Your task to perform on an android device: Show the shopping cart on amazon. Add "usb-c to usb-a" to the cart on amazon, then select checkout. Image 0: 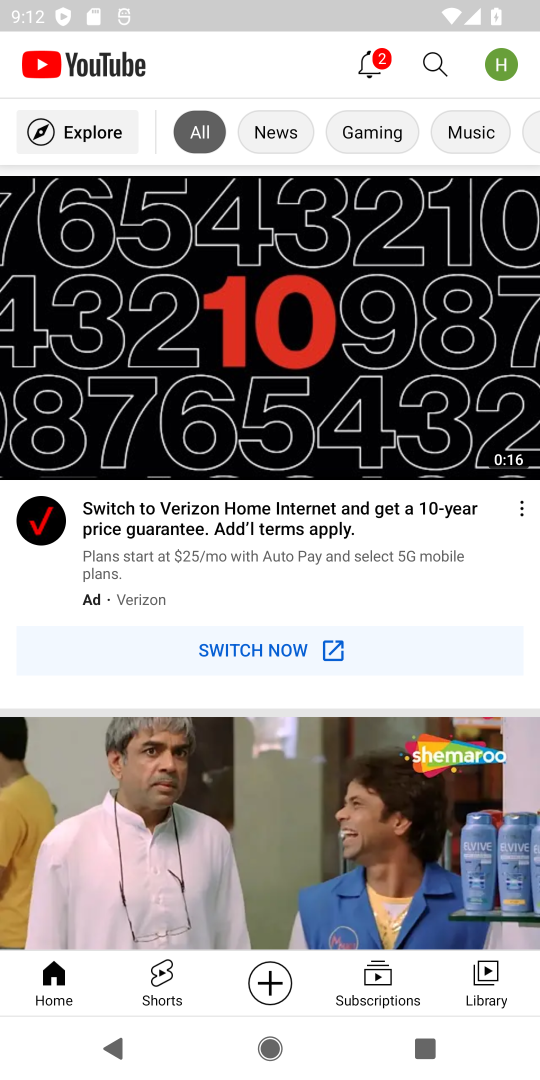
Step 0: press home button
Your task to perform on an android device: Show the shopping cart on amazon. Add "usb-c to usb-a" to the cart on amazon, then select checkout. Image 1: 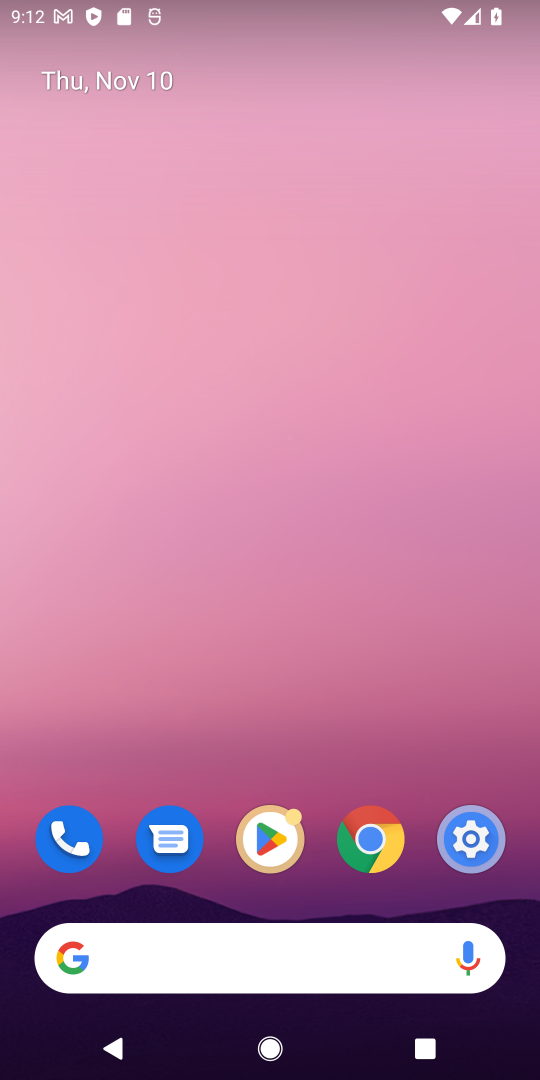
Step 1: click (358, 835)
Your task to perform on an android device: Show the shopping cart on amazon. Add "usb-c to usb-a" to the cart on amazon, then select checkout. Image 2: 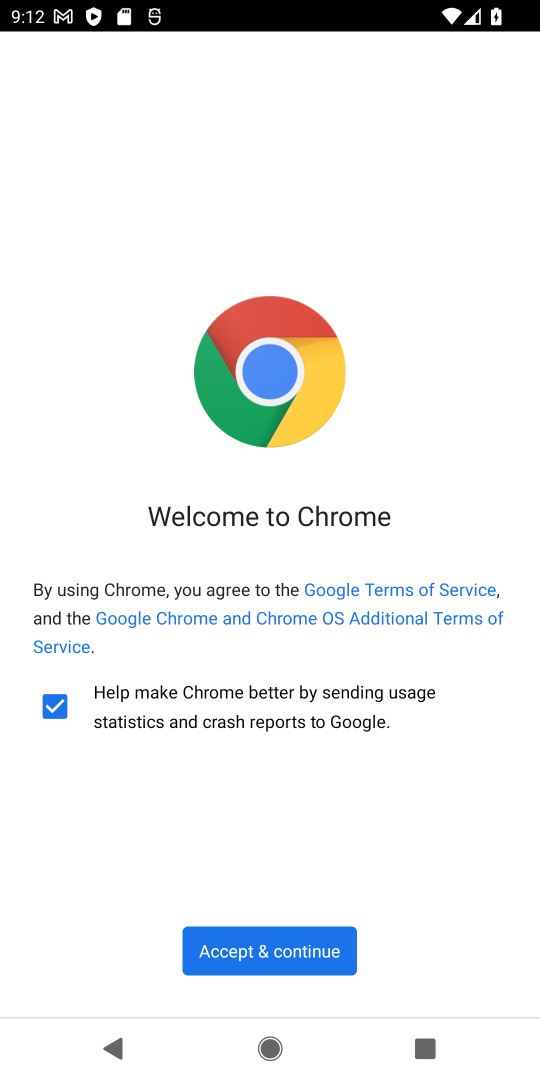
Step 2: click (263, 945)
Your task to perform on an android device: Show the shopping cart on amazon. Add "usb-c to usb-a" to the cart on amazon, then select checkout. Image 3: 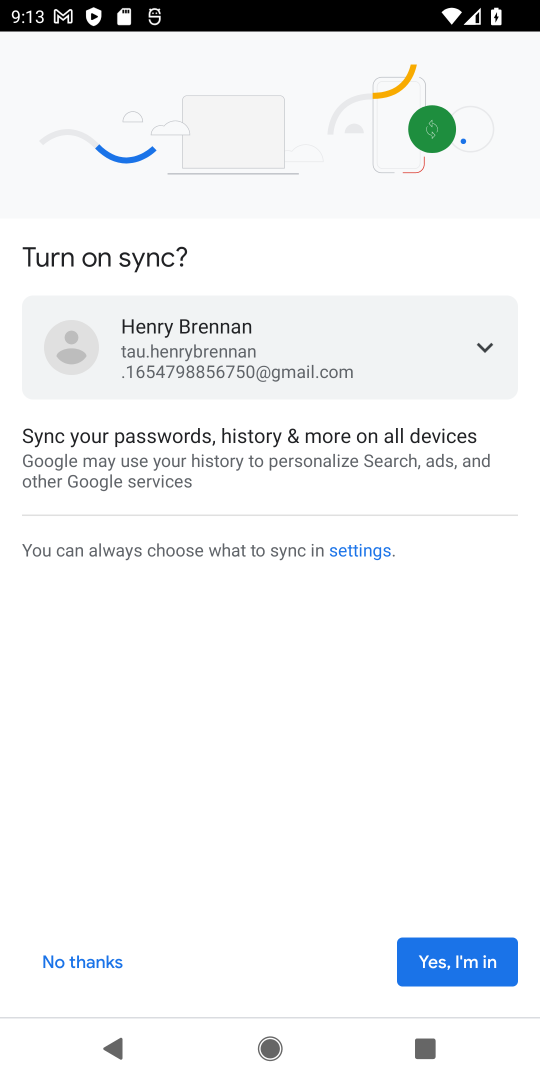
Step 3: click (481, 967)
Your task to perform on an android device: Show the shopping cart on amazon. Add "usb-c to usb-a" to the cart on amazon, then select checkout. Image 4: 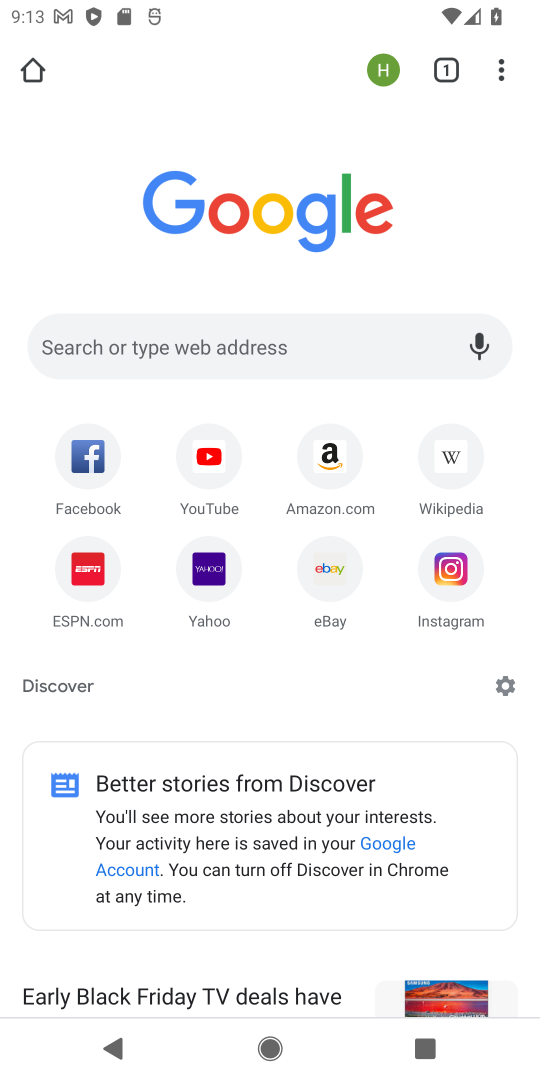
Step 4: click (334, 463)
Your task to perform on an android device: Show the shopping cart on amazon. Add "usb-c to usb-a" to the cart on amazon, then select checkout. Image 5: 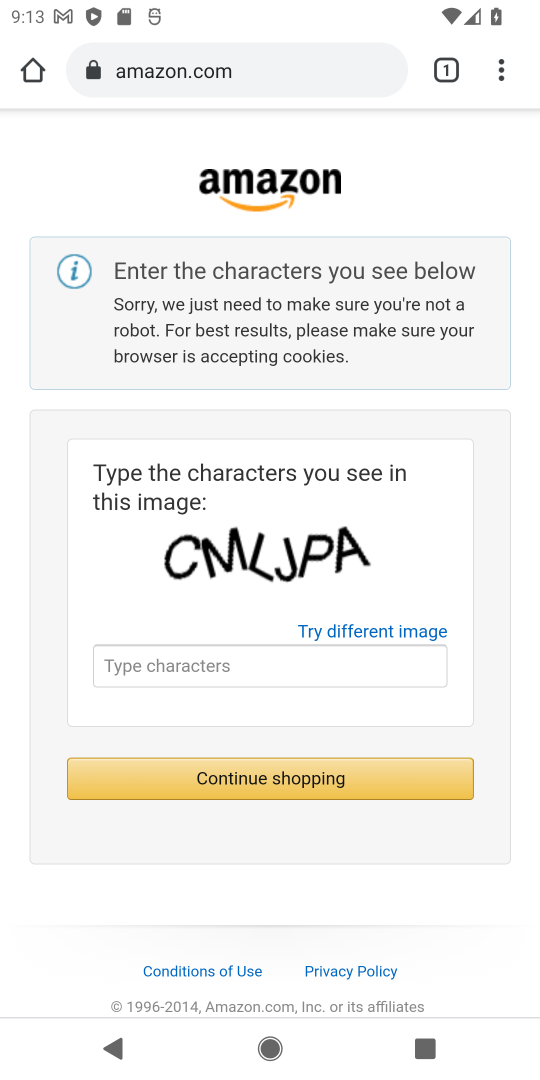
Step 5: click (324, 69)
Your task to perform on an android device: Show the shopping cart on amazon. Add "usb-c to usb-a" to the cart on amazon, then select checkout. Image 6: 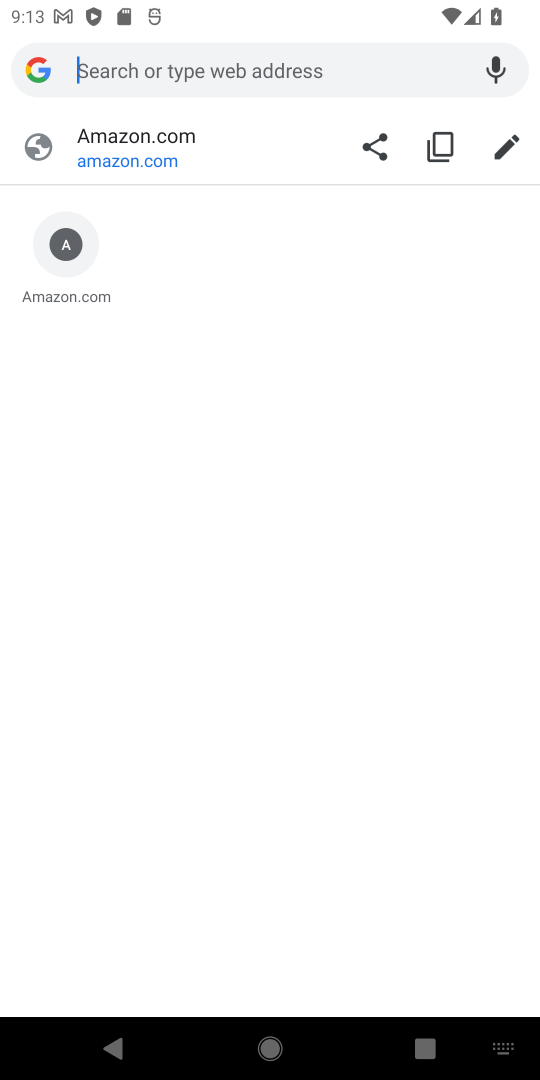
Step 6: type "amazon"
Your task to perform on an android device: Show the shopping cart on amazon. Add "usb-c to usb-a" to the cart on amazon, then select checkout. Image 7: 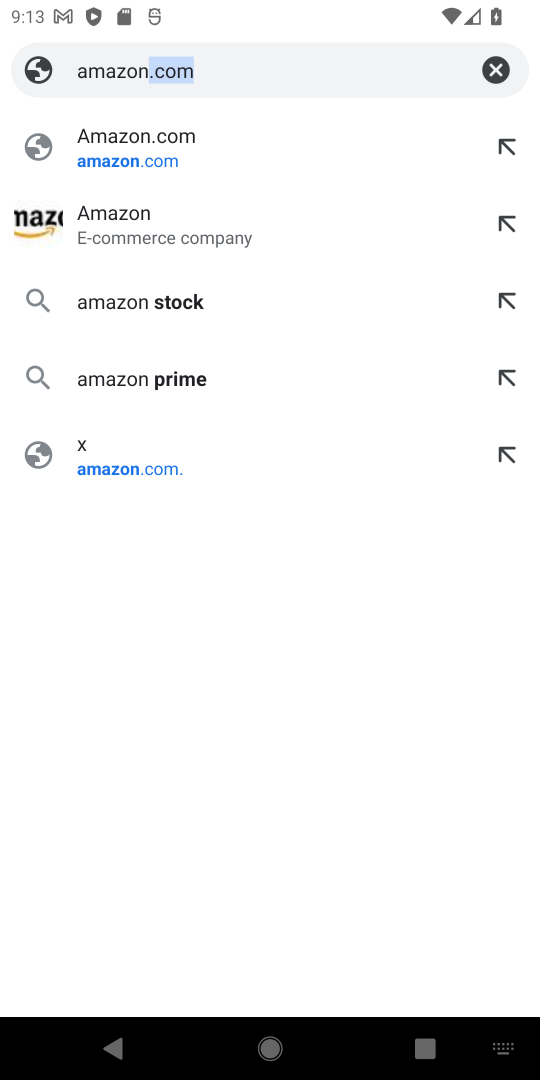
Step 7: click (343, 62)
Your task to perform on an android device: Show the shopping cart on amazon. Add "usb-c to usb-a" to the cart on amazon, then select checkout. Image 8: 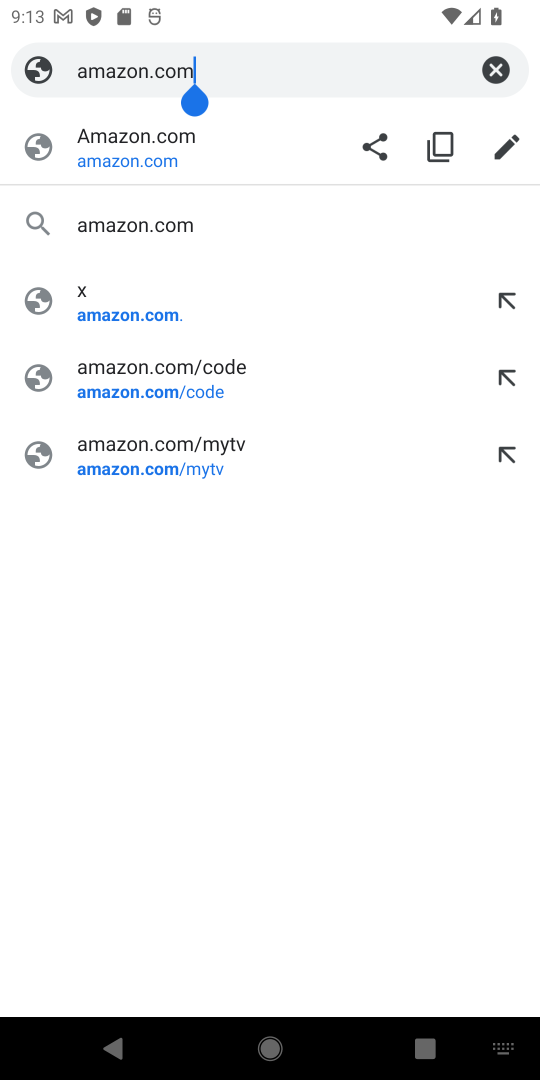
Step 8: click (171, 221)
Your task to perform on an android device: Show the shopping cart on amazon. Add "usb-c to usb-a" to the cart on amazon, then select checkout. Image 9: 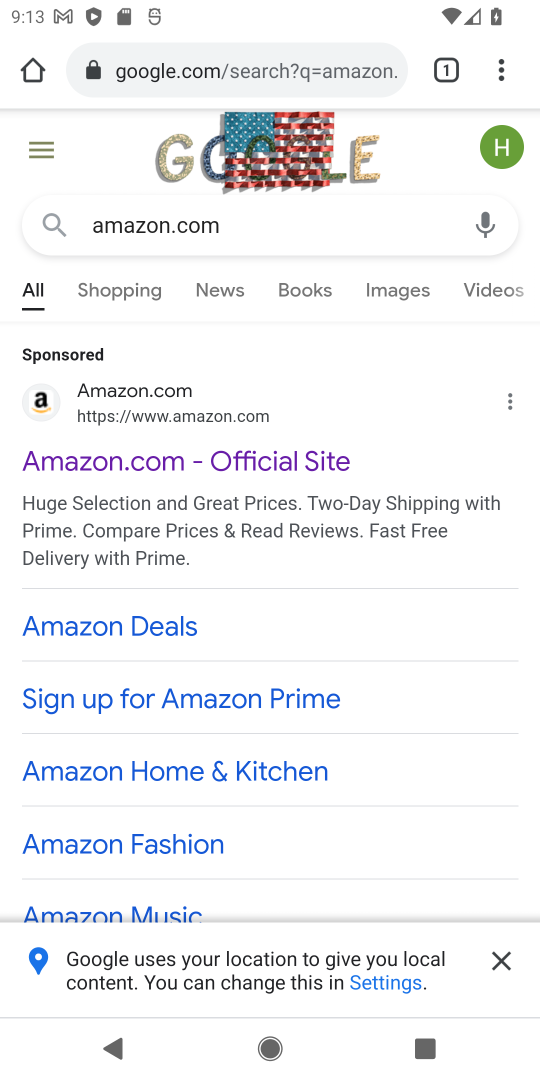
Step 9: drag from (326, 688) to (347, 302)
Your task to perform on an android device: Show the shopping cart on amazon. Add "usb-c to usb-a" to the cart on amazon, then select checkout. Image 10: 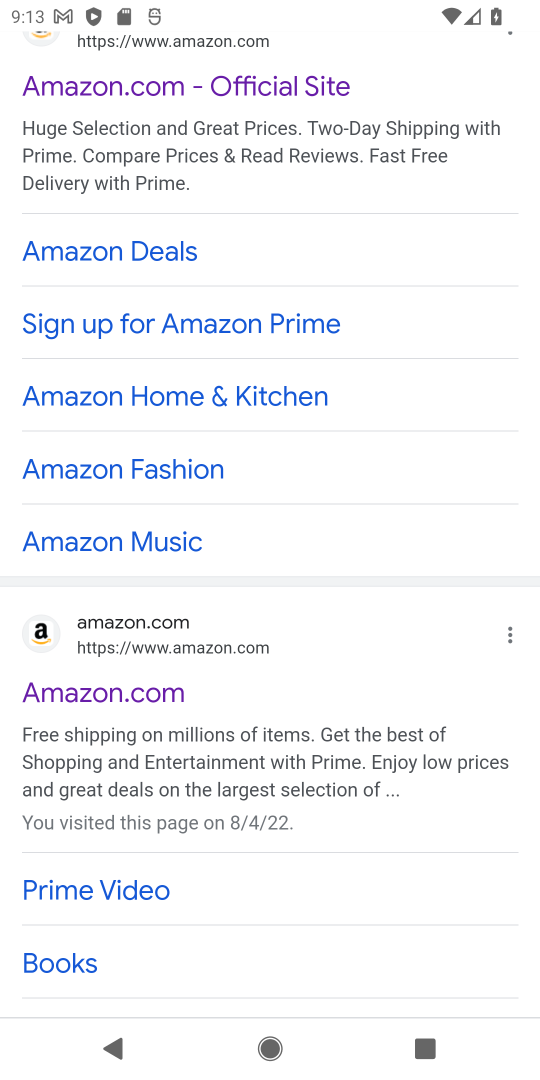
Step 10: click (214, 642)
Your task to perform on an android device: Show the shopping cart on amazon. Add "usb-c to usb-a" to the cart on amazon, then select checkout. Image 11: 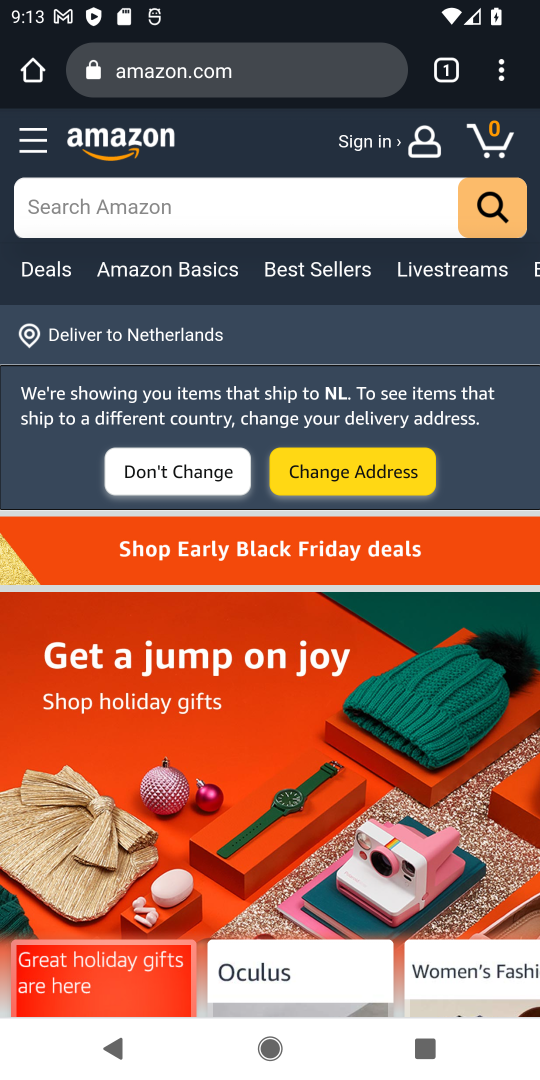
Step 11: click (372, 210)
Your task to perform on an android device: Show the shopping cart on amazon. Add "usb-c to usb-a" to the cart on amazon, then select checkout. Image 12: 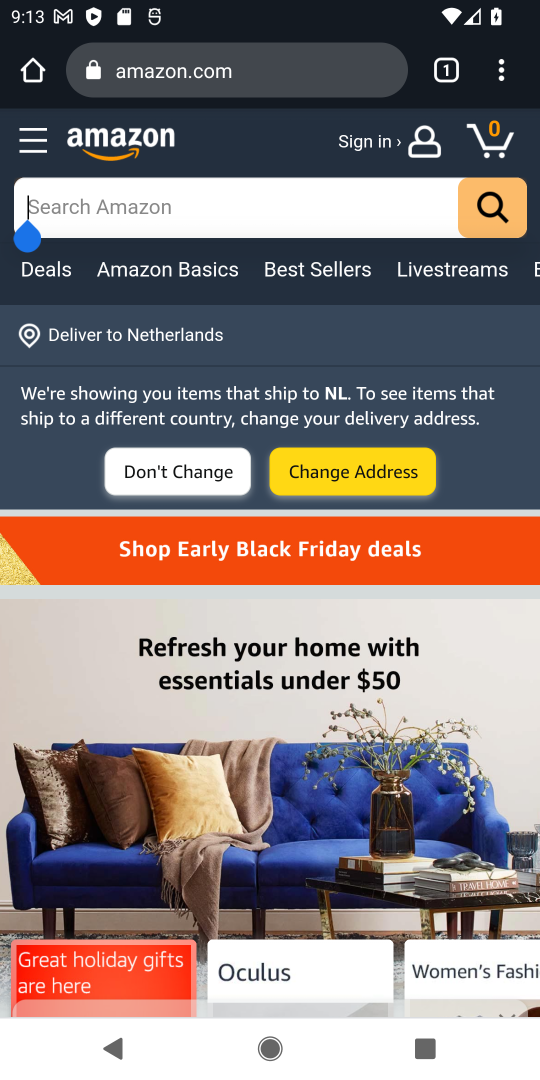
Step 12: type "usb-c to usb-a"
Your task to perform on an android device: Show the shopping cart on amazon. Add "usb-c to usb-a" to the cart on amazon, then select checkout. Image 13: 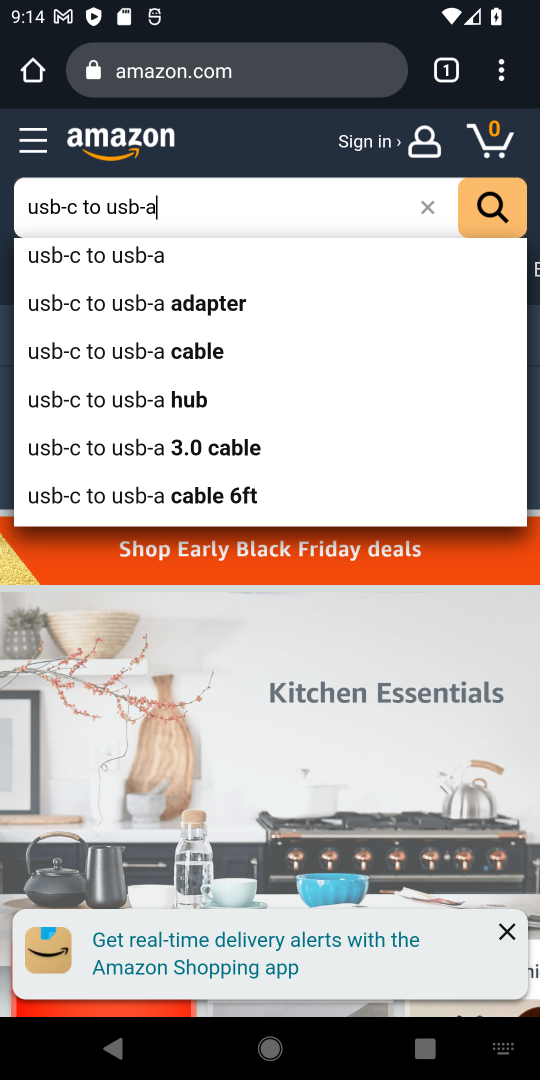
Step 13: click (118, 251)
Your task to perform on an android device: Show the shopping cart on amazon. Add "usb-c to usb-a" to the cart on amazon, then select checkout. Image 14: 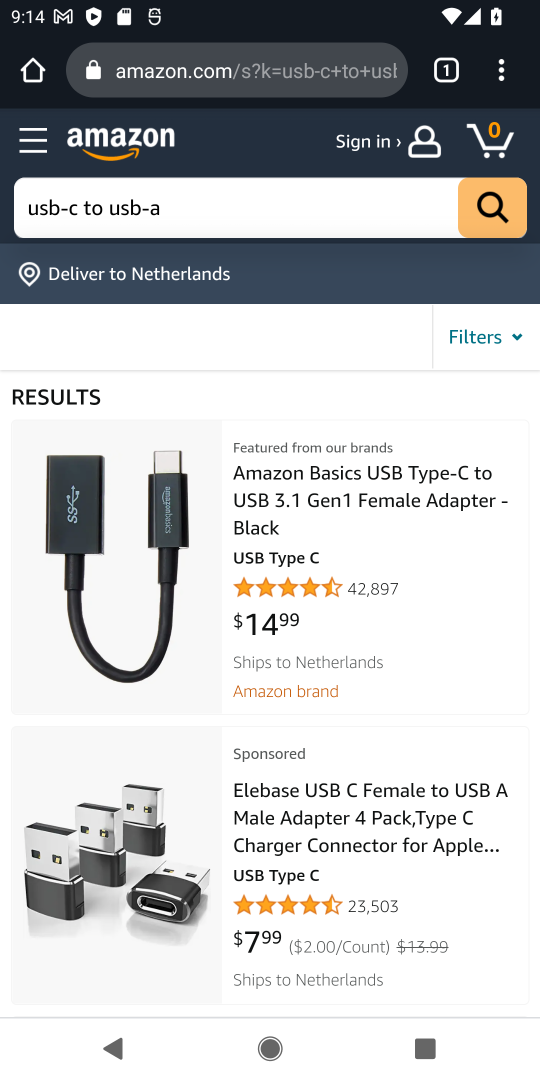
Step 14: click (134, 844)
Your task to perform on an android device: Show the shopping cart on amazon. Add "usb-c to usb-a" to the cart on amazon, then select checkout. Image 15: 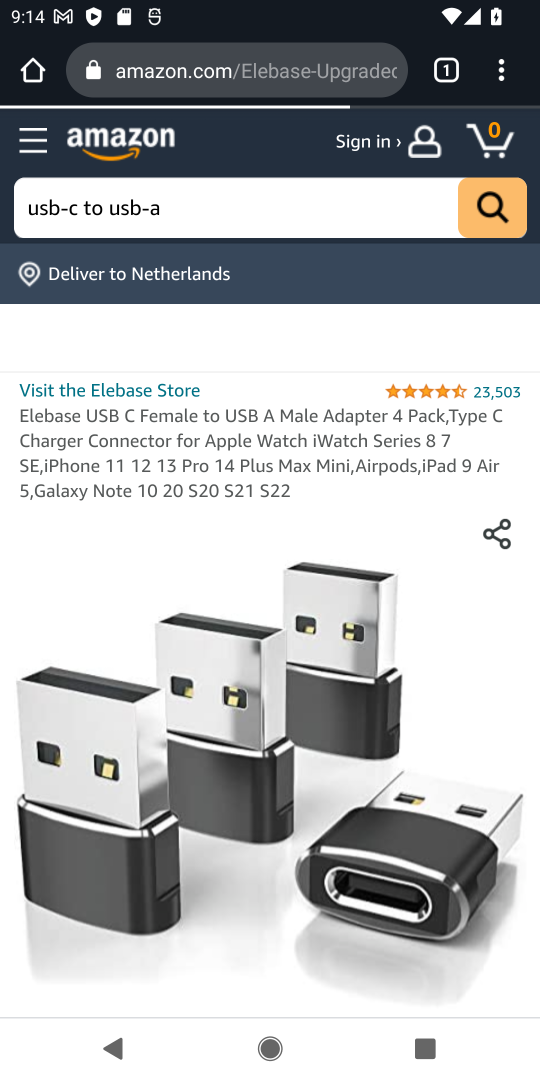
Step 15: drag from (308, 671) to (351, 270)
Your task to perform on an android device: Show the shopping cart on amazon. Add "usb-c to usb-a" to the cart on amazon, then select checkout. Image 16: 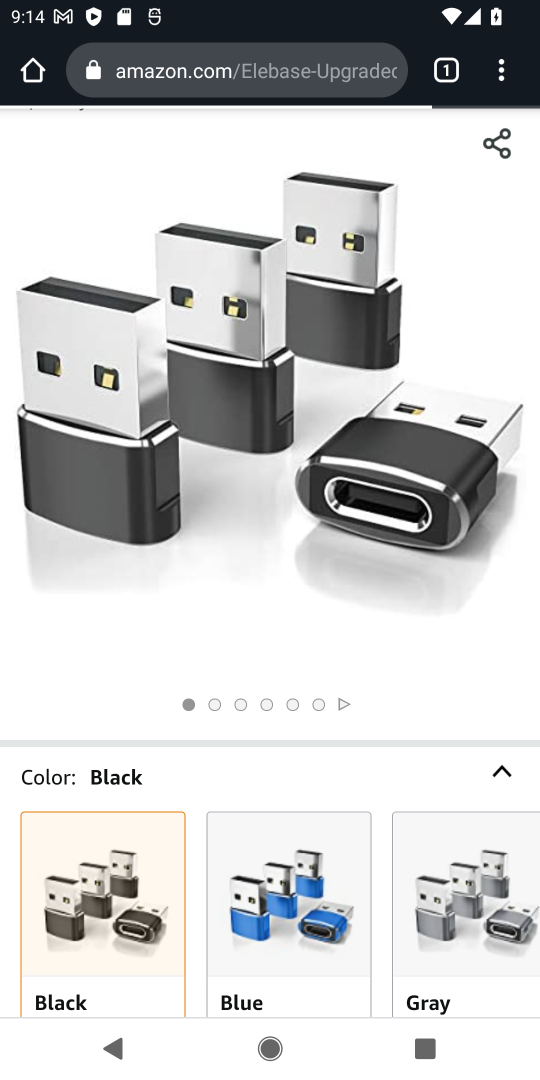
Step 16: drag from (387, 857) to (351, 324)
Your task to perform on an android device: Show the shopping cart on amazon. Add "usb-c to usb-a" to the cart on amazon, then select checkout. Image 17: 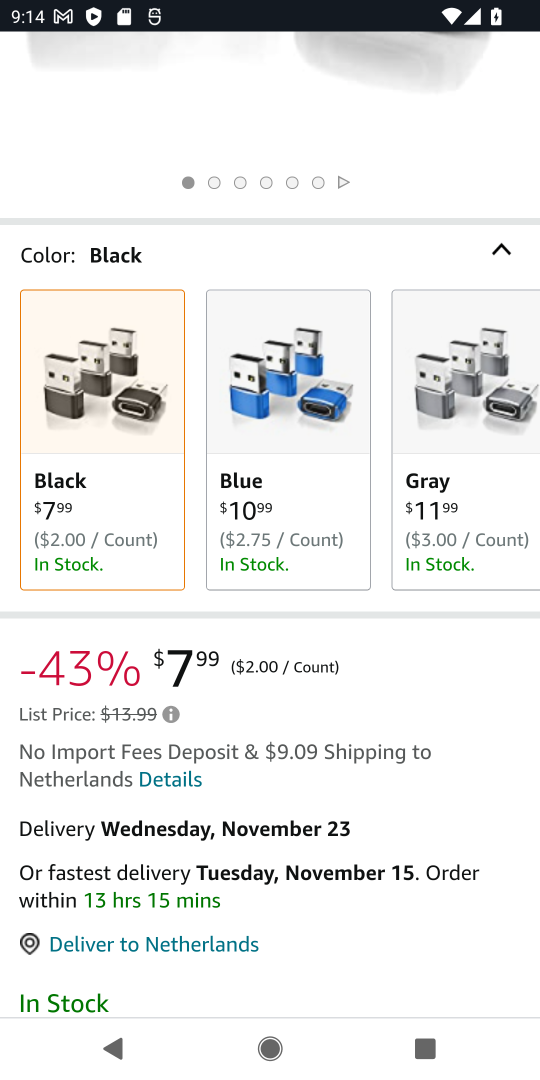
Step 17: drag from (450, 694) to (410, 258)
Your task to perform on an android device: Show the shopping cart on amazon. Add "usb-c to usb-a" to the cart on amazon, then select checkout. Image 18: 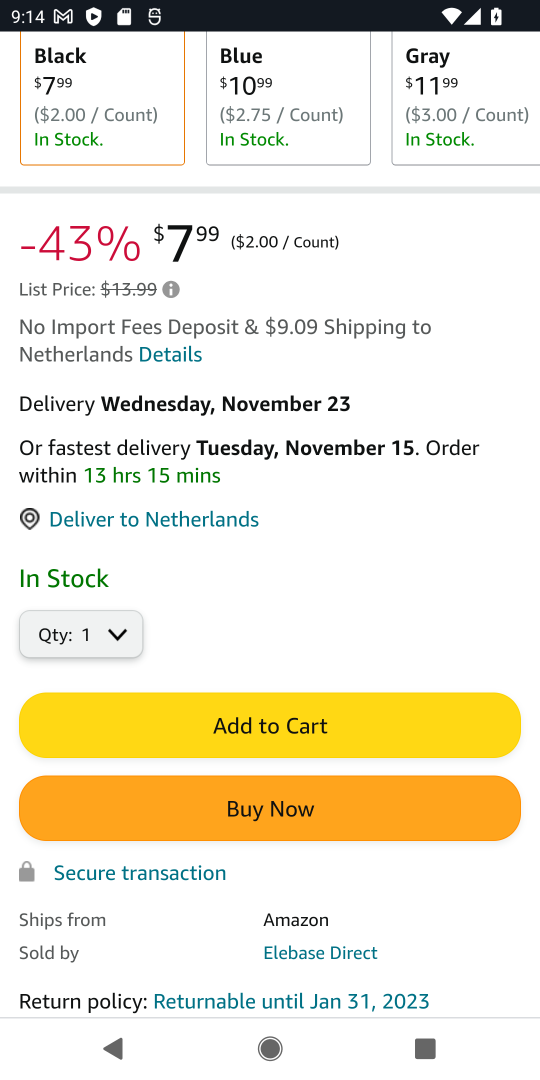
Step 18: click (255, 727)
Your task to perform on an android device: Show the shopping cart on amazon. Add "usb-c to usb-a" to the cart on amazon, then select checkout. Image 19: 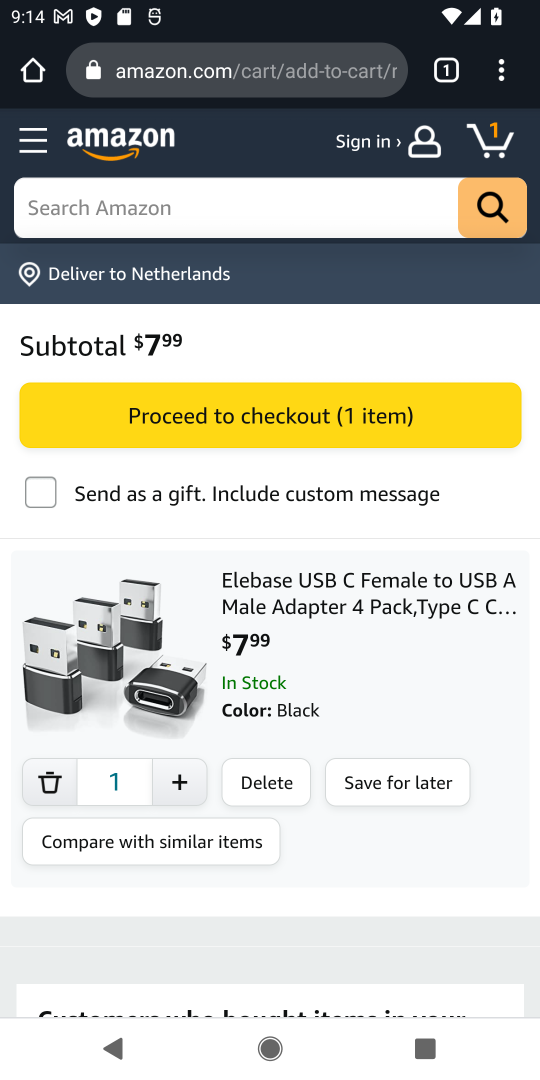
Step 19: click (311, 408)
Your task to perform on an android device: Show the shopping cart on amazon. Add "usb-c to usb-a" to the cart on amazon, then select checkout. Image 20: 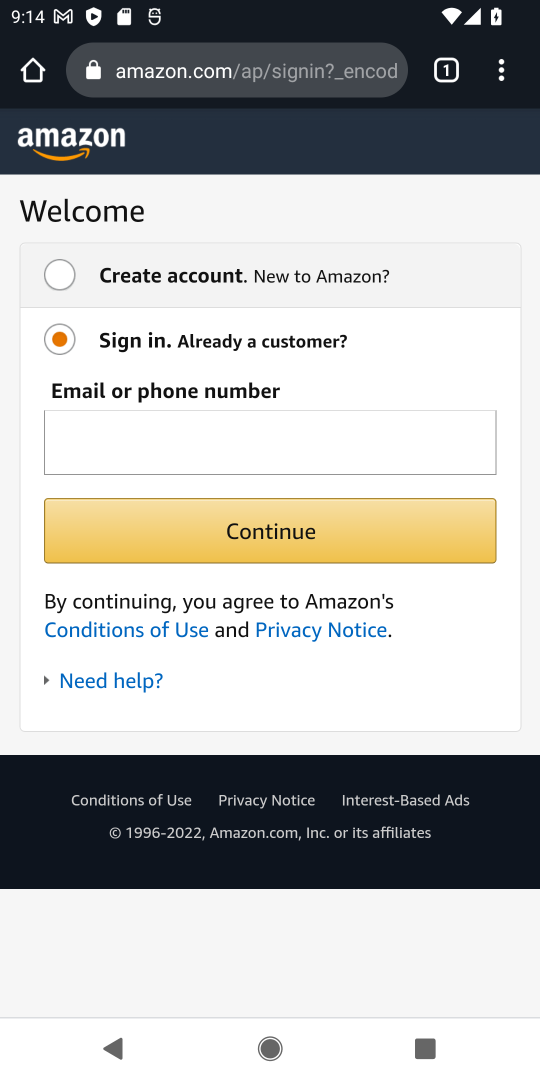
Step 20: task complete